Your task to perform on an android device: Play the last video I watched on Youtube Image 0: 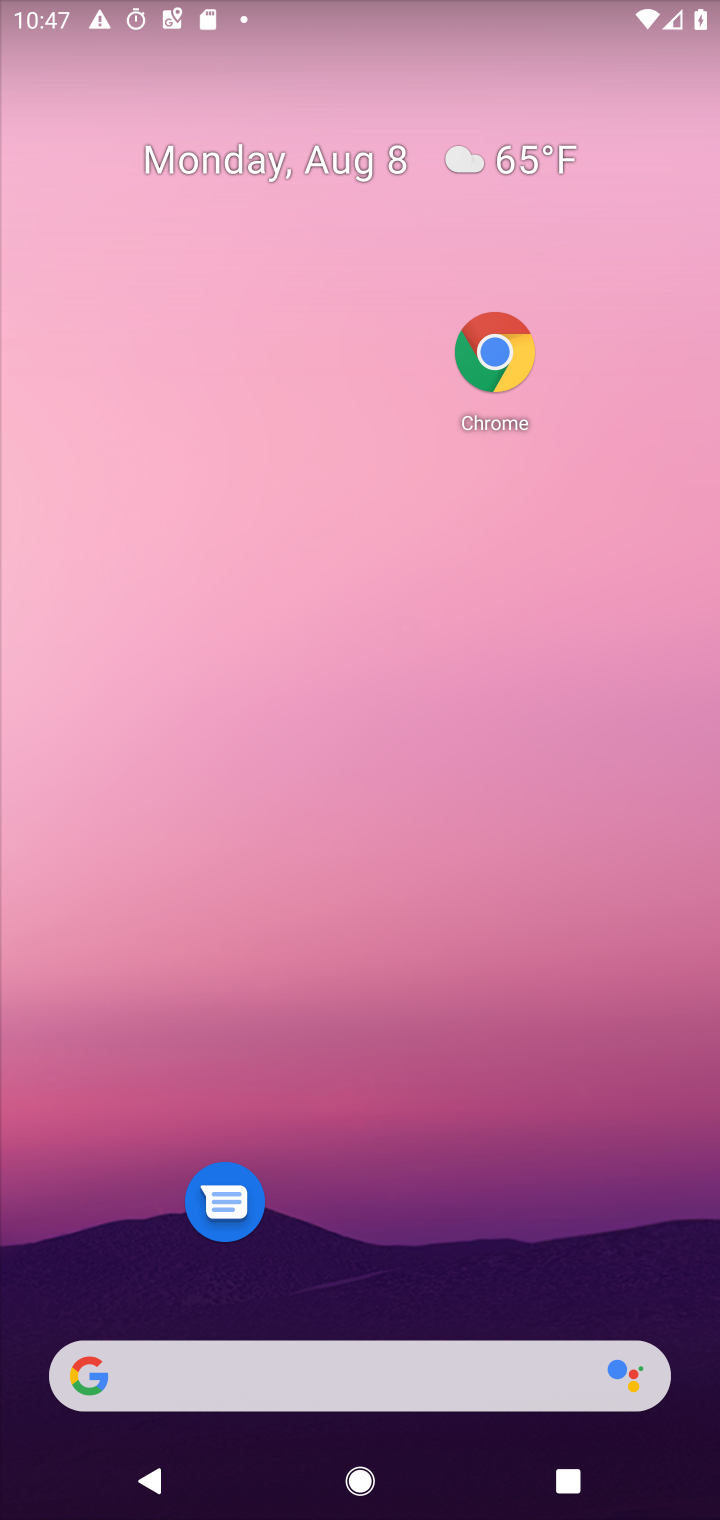
Step 0: drag from (471, 1242) to (471, 666)
Your task to perform on an android device: Play the last video I watched on Youtube Image 1: 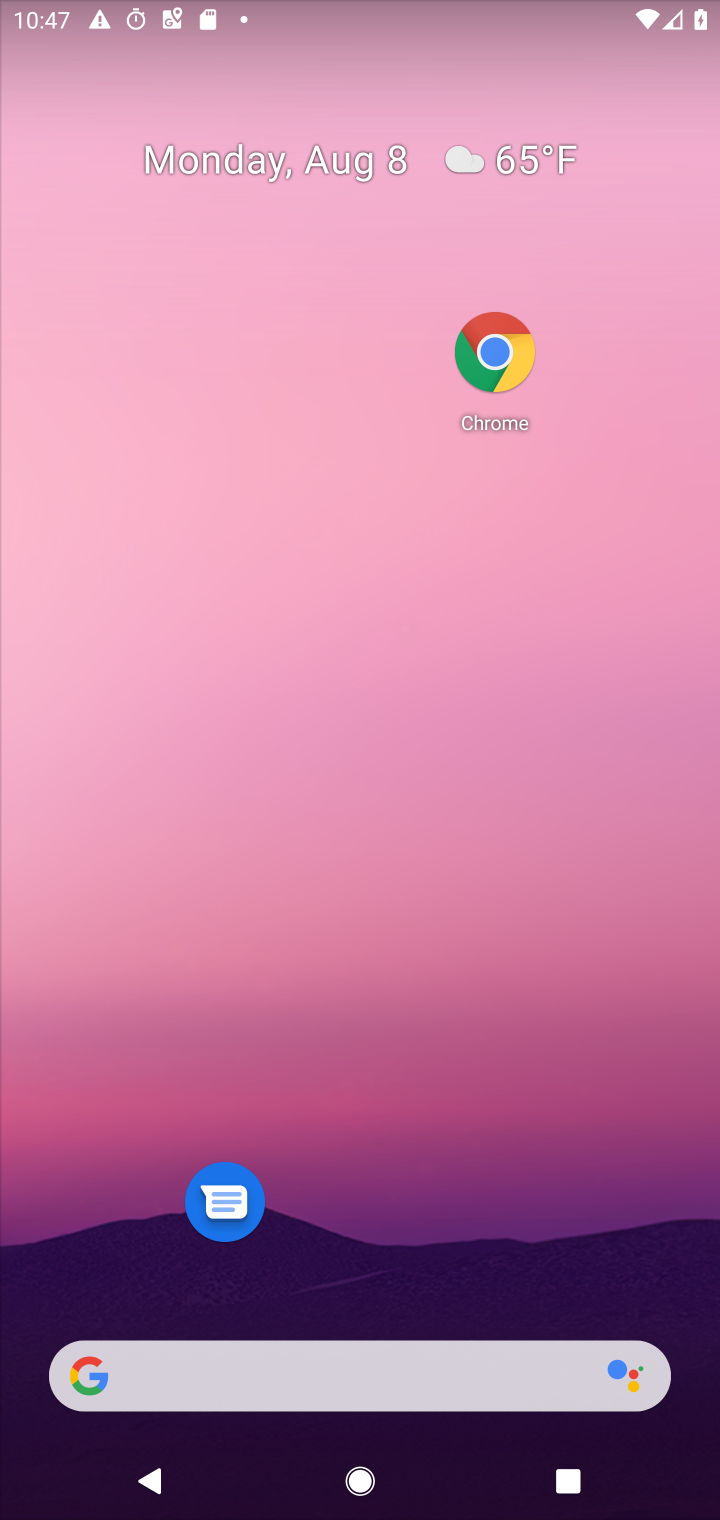
Step 1: drag from (445, 1304) to (496, 166)
Your task to perform on an android device: Play the last video I watched on Youtube Image 2: 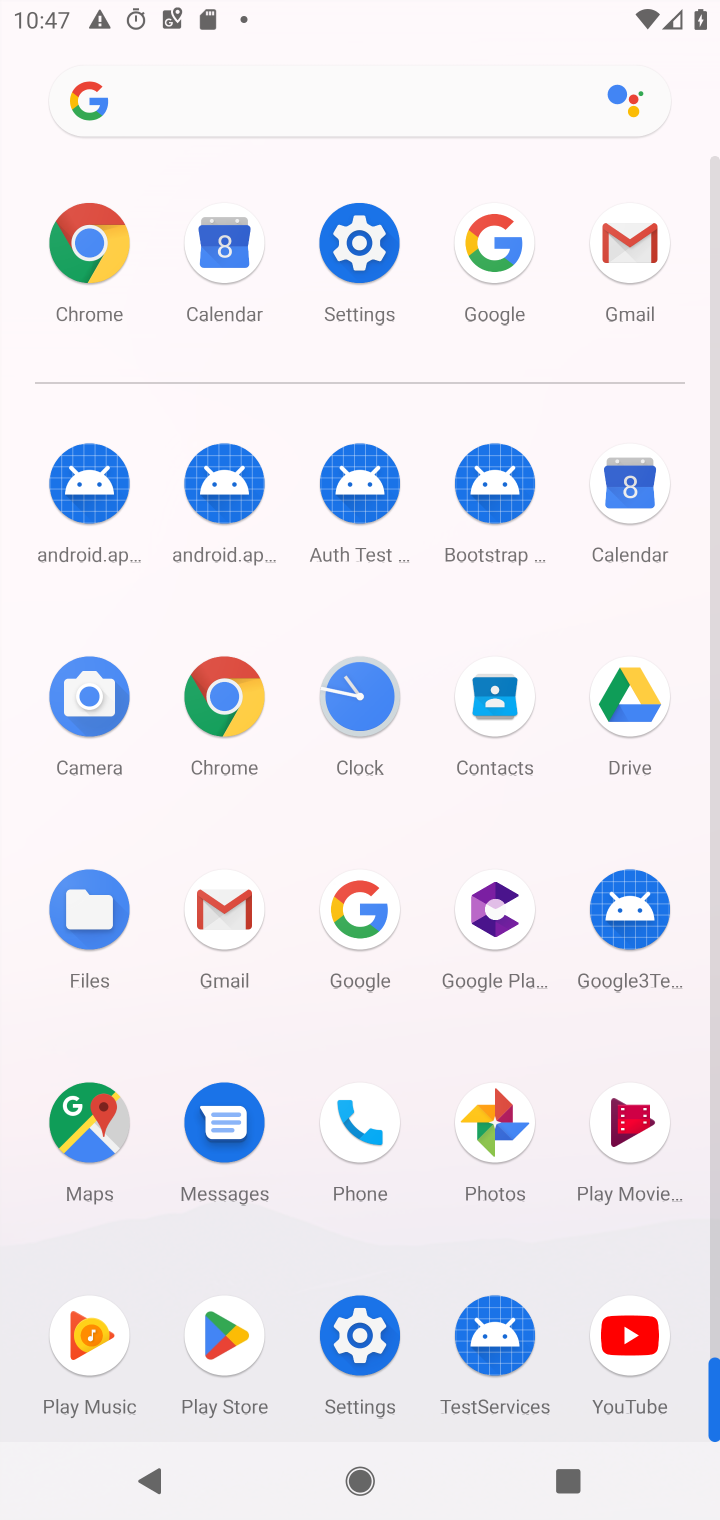
Step 2: click (642, 1344)
Your task to perform on an android device: Play the last video I watched on Youtube Image 3: 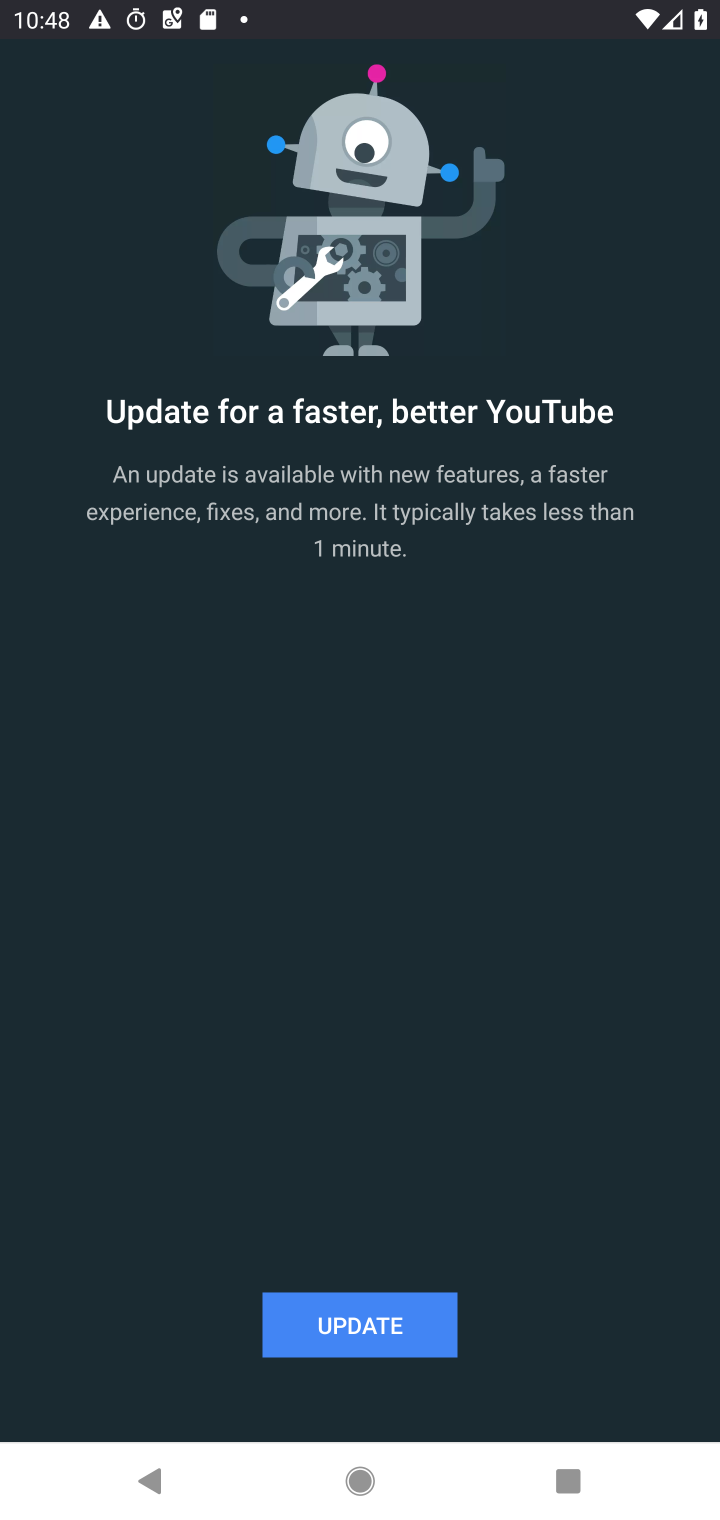
Step 3: task complete